Your task to perform on an android device: Turn off the flashlight Image 0: 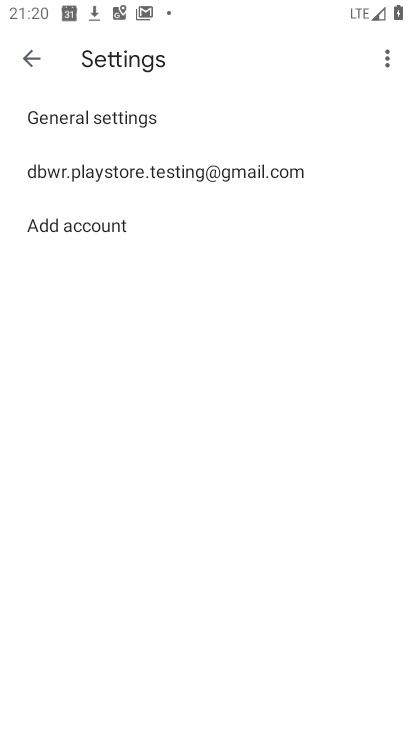
Step 0: press home button
Your task to perform on an android device: Turn off the flashlight Image 1: 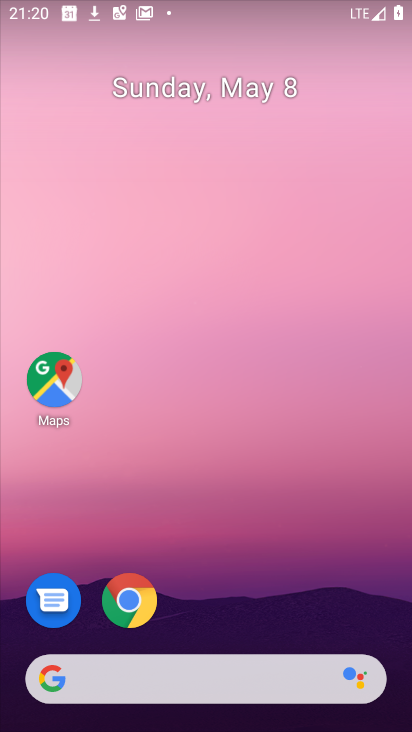
Step 1: drag from (283, 700) to (227, 130)
Your task to perform on an android device: Turn off the flashlight Image 2: 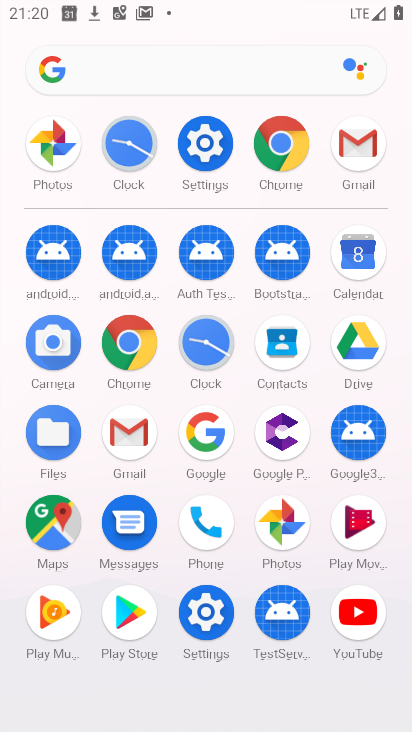
Step 2: click (211, 140)
Your task to perform on an android device: Turn off the flashlight Image 3: 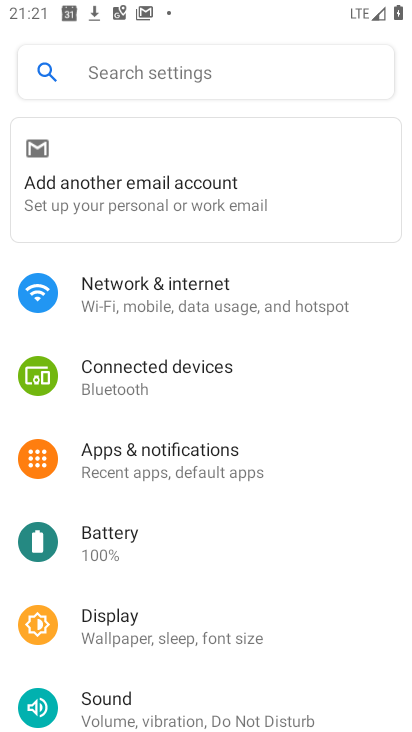
Step 3: click (165, 86)
Your task to perform on an android device: Turn off the flashlight Image 4: 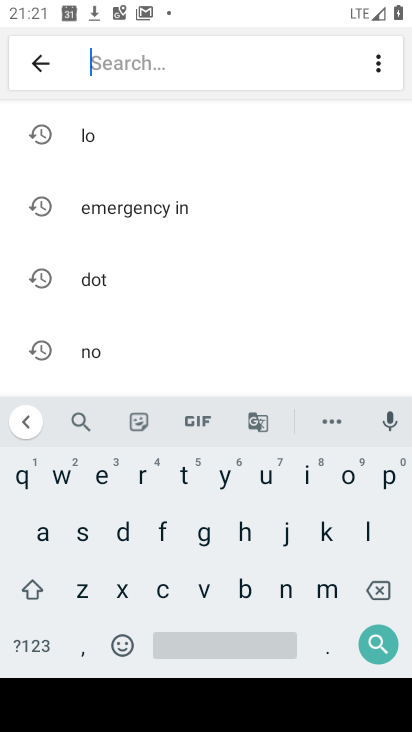
Step 4: click (159, 534)
Your task to perform on an android device: Turn off the flashlight Image 5: 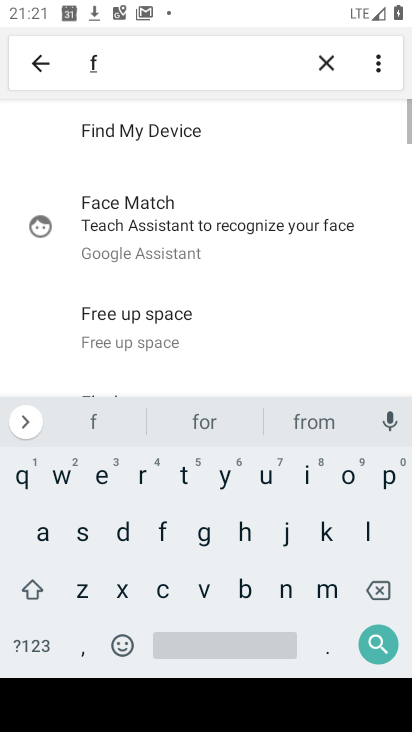
Step 5: click (372, 534)
Your task to perform on an android device: Turn off the flashlight Image 6: 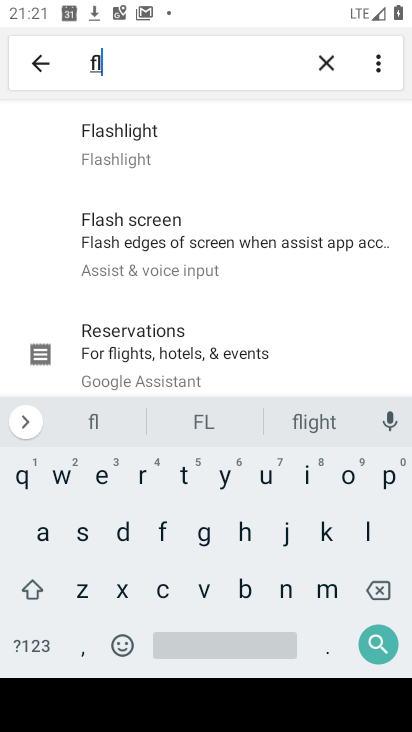
Step 6: click (149, 142)
Your task to perform on an android device: Turn off the flashlight Image 7: 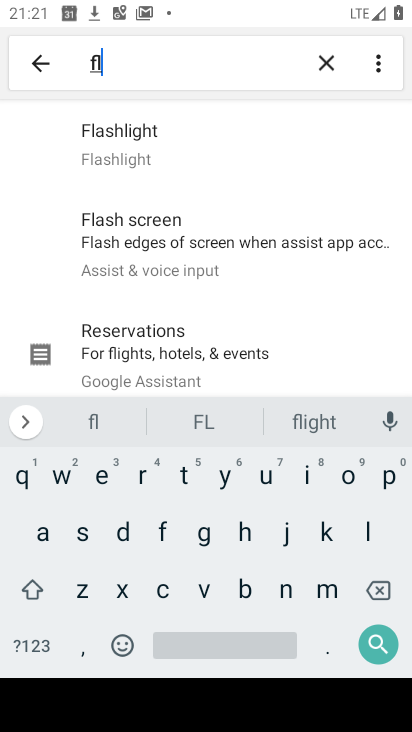
Step 7: task complete